Your task to perform on an android device: allow notifications from all sites in the chrome app Image 0: 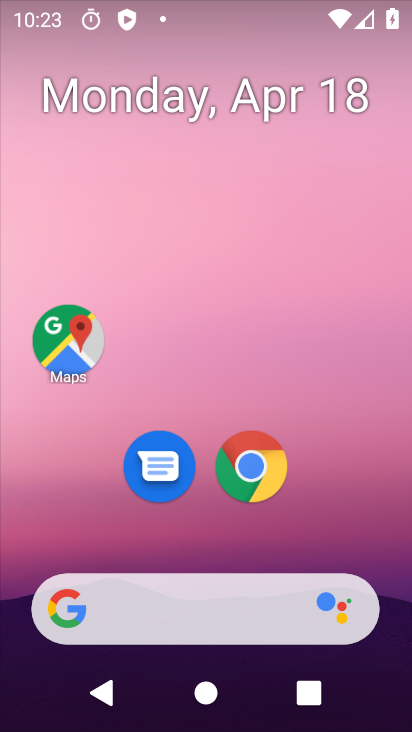
Step 0: click (254, 493)
Your task to perform on an android device: allow notifications from all sites in the chrome app Image 1: 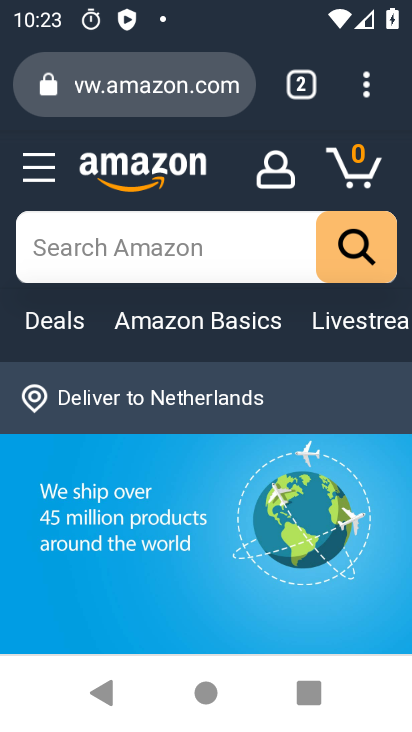
Step 1: click (363, 79)
Your task to perform on an android device: allow notifications from all sites in the chrome app Image 2: 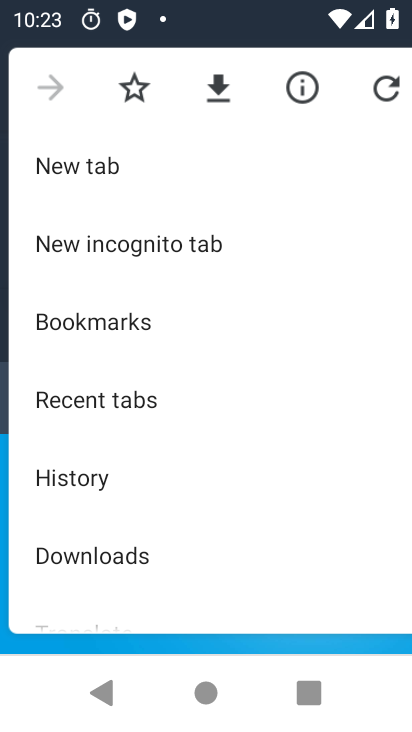
Step 2: drag from (202, 510) to (218, 217)
Your task to perform on an android device: allow notifications from all sites in the chrome app Image 3: 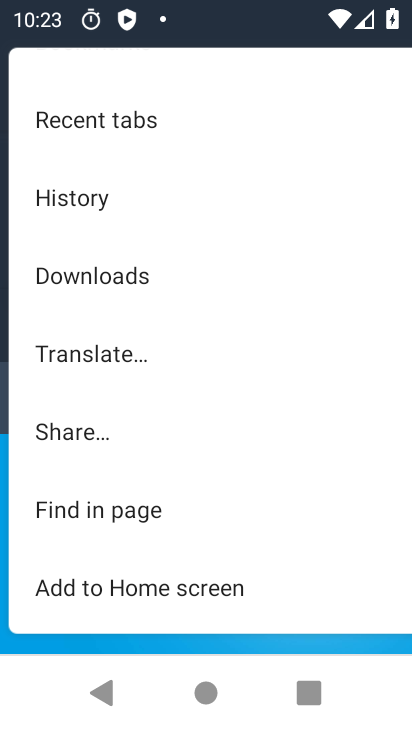
Step 3: drag from (201, 542) to (203, 330)
Your task to perform on an android device: allow notifications from all sites in the chrome app Image 4: 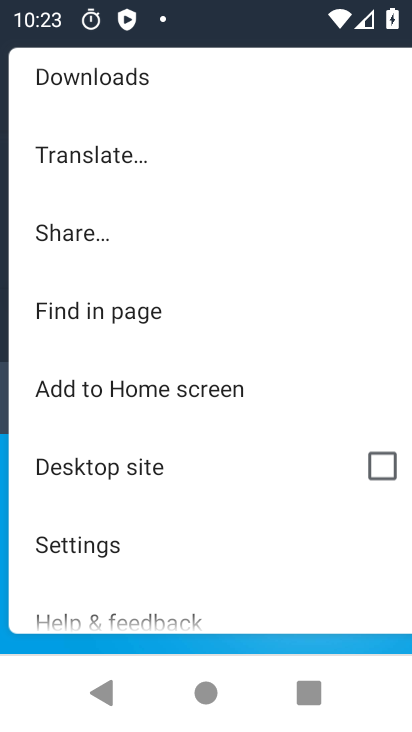
Step 4: click (109, 545)
Your task to perform on an android device: allow notifications from all sites in the chrome app Image 5: 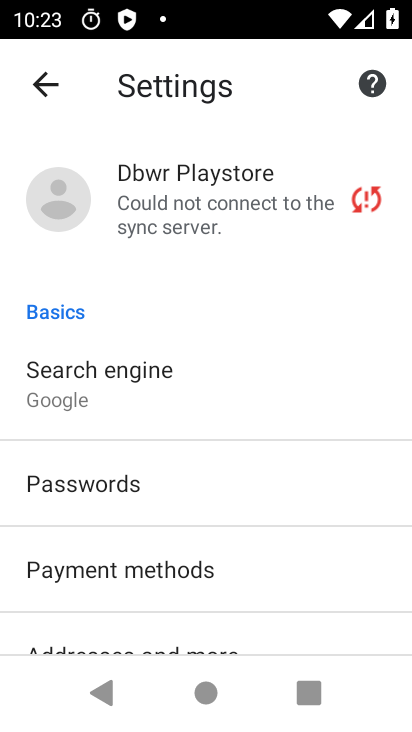
Step 5: drag from (166, 570) to (173, 433)
Your task to perform on an android device: allow notifications from all sites in the chrome app Image 6: 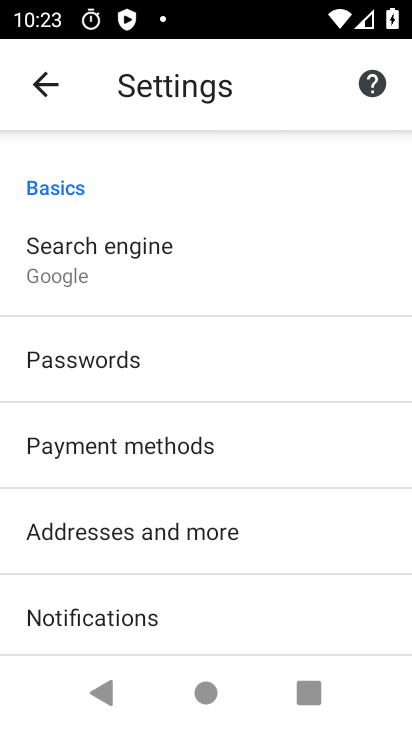
Step 6: drag from (171, 532) to (213, 254)
Your task to perform on an android device: allow notifications from all sites in the chrome app Image 7: 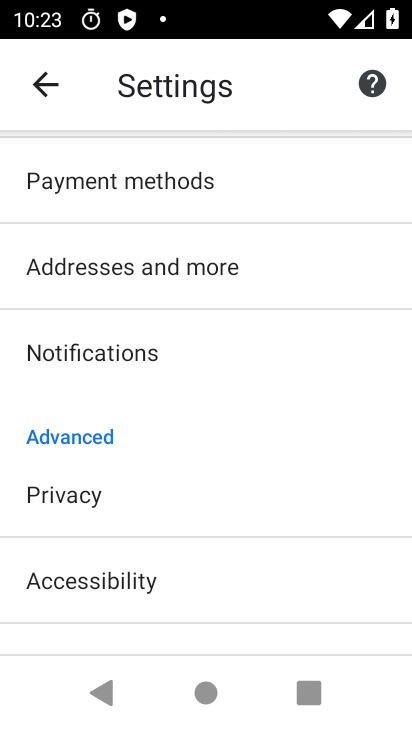
Step 7: click (127, 363)
Your task to perform on an android device: allow notifications from all sites in the chrome app Image 8: 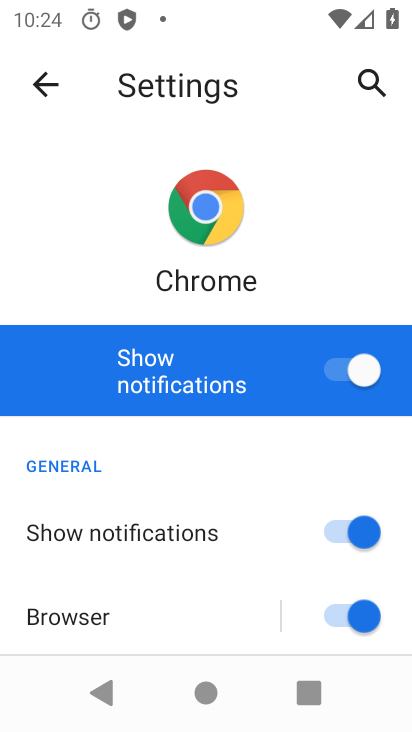
Step 8: task complete